Your task to perform on an android device: Open Android settings Image 0: 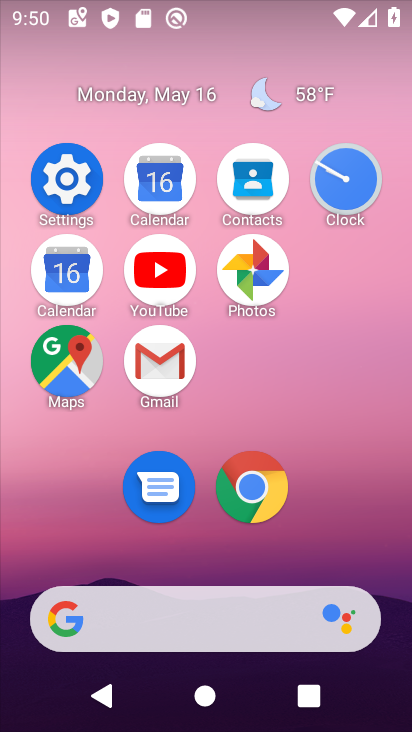
Step 0: click (76, 195)
Your task to perform on an android device: Open Android settings Image 1: 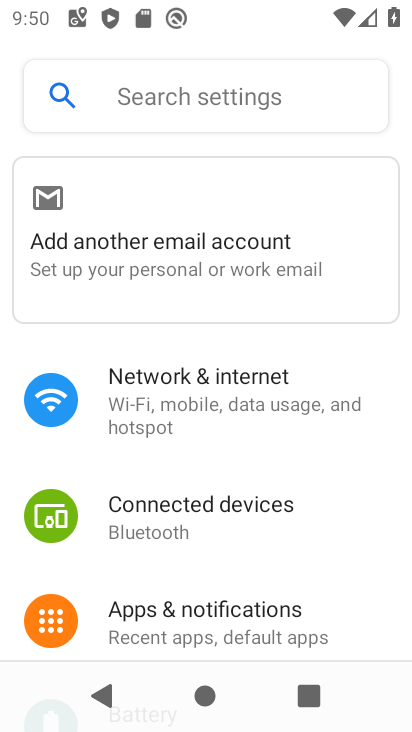
Step 1: task complete